Your task to perform on an android device: Open Wikipedia Image 0: 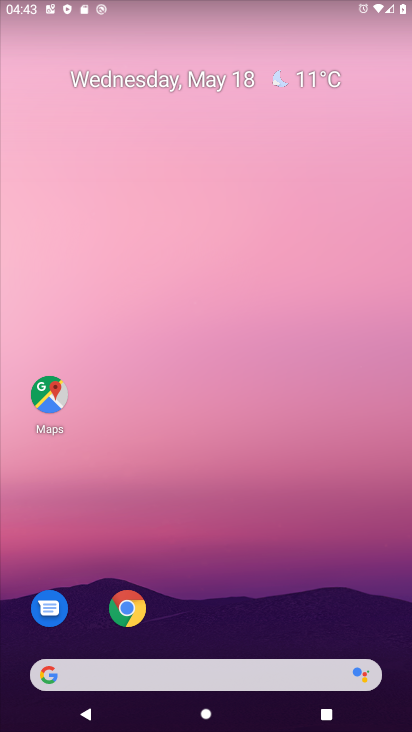
Step 0: click (124, 601)
Your task to perform on an android device: Open Wikipedia Image 1: 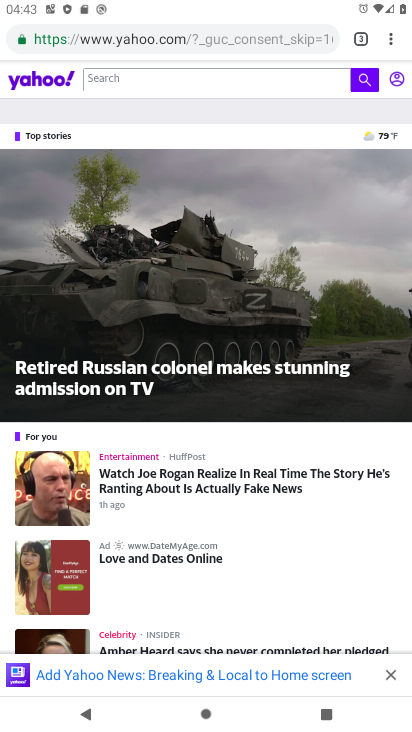
Step 1: click (362, 33)
Your task to perform on an android device: Open Wikipedia Image 2: 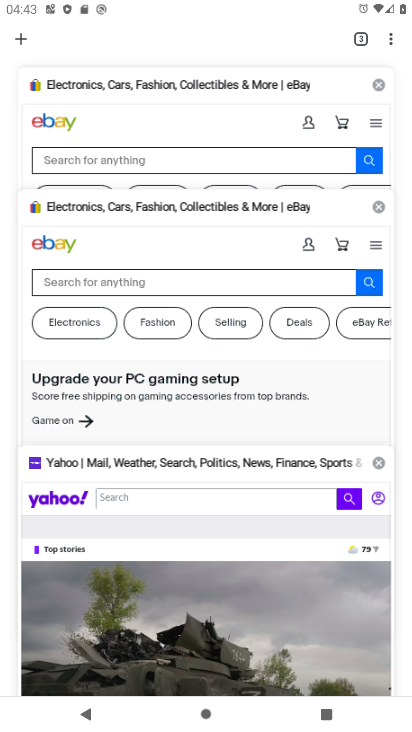
Step 2: click (25, 46)
Your task to perform on an android device: Open Wikipedia Image 3: 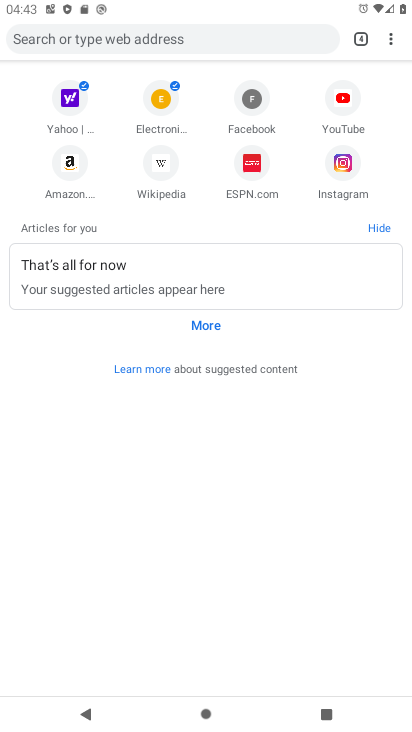
Step 3: click (147, 175)
Your task to perform on an android device: Open Wikipedia Image 4: 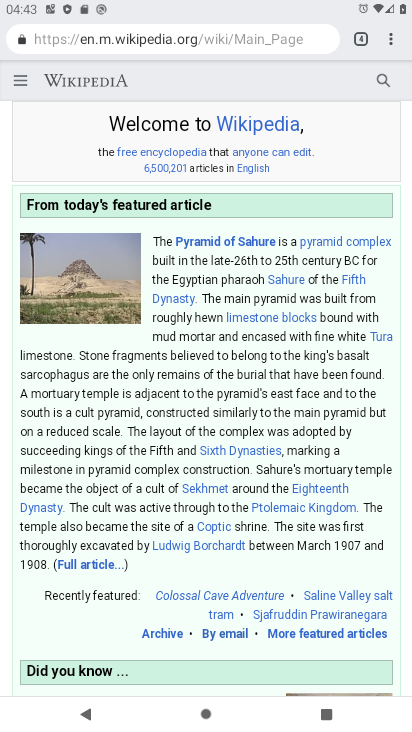
Step 4: task complete